Your task to perform on an android device: delete the emails in spam in the gmail app Image 0: 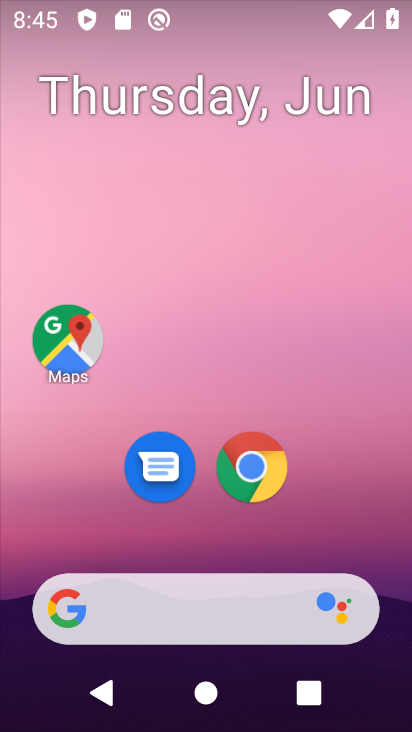
Step 0: drag from (67, 533) to (171, 91)
Your task to perform on an android device: delete the emails in spam in the gmail app Image 1: 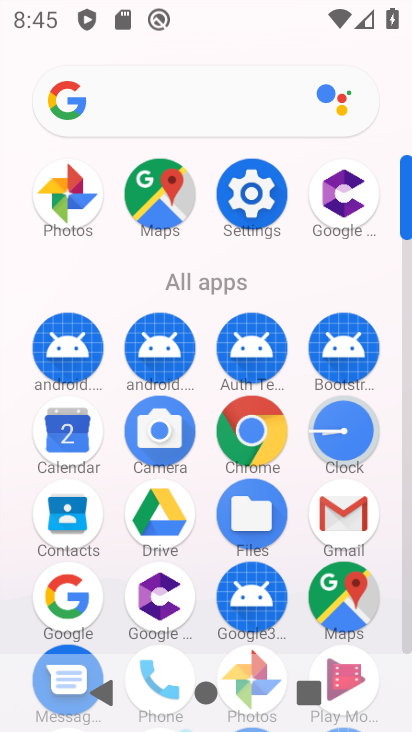
Step 1: click (325, 523)
Your task to perform on an android device: delete the emails in spam in the gmail app Image 2: 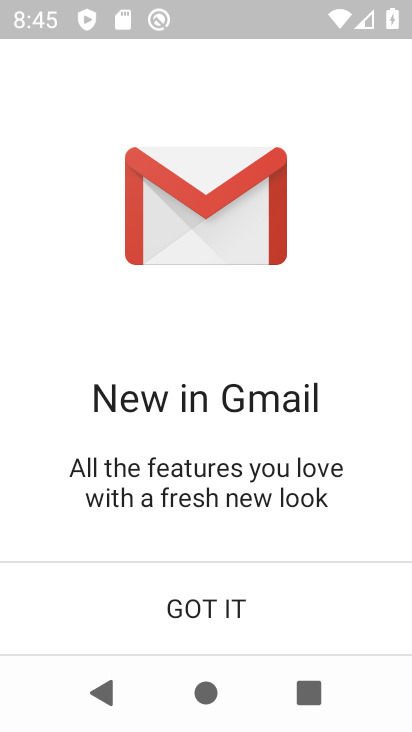
Step 2: click (243, 629)
Your task to perform on an android device: delete the emails in spam in the gmail app Image 3: 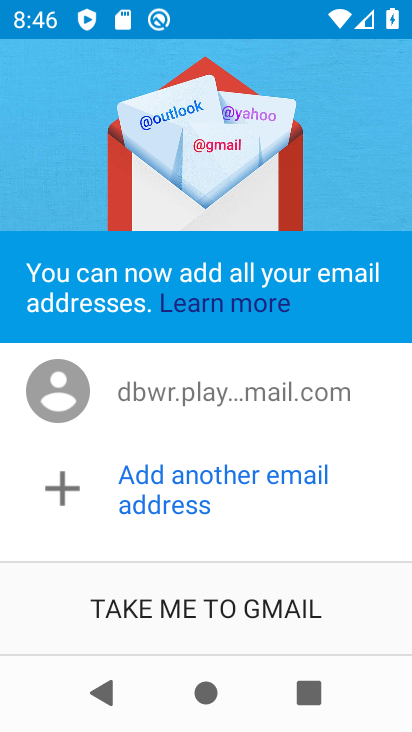
Step 3: click (243, 633)
Your task to perform on an android device: delete the emails in spam in the gmail app Image 4: 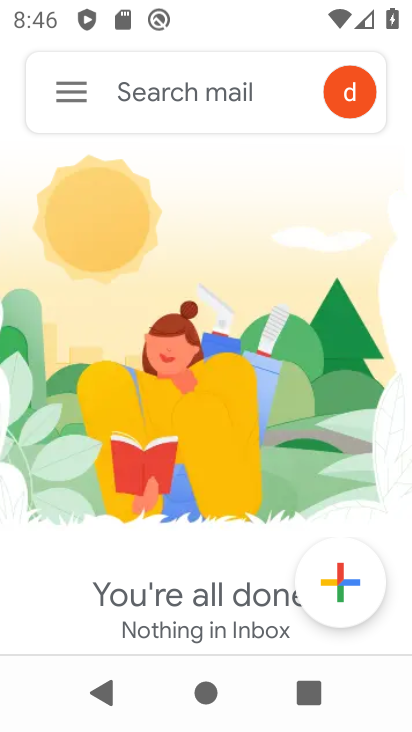
Step 4: click (90, 84)
Your task to perform on an android device: delete the emails in spam in the gmail app Image 5: 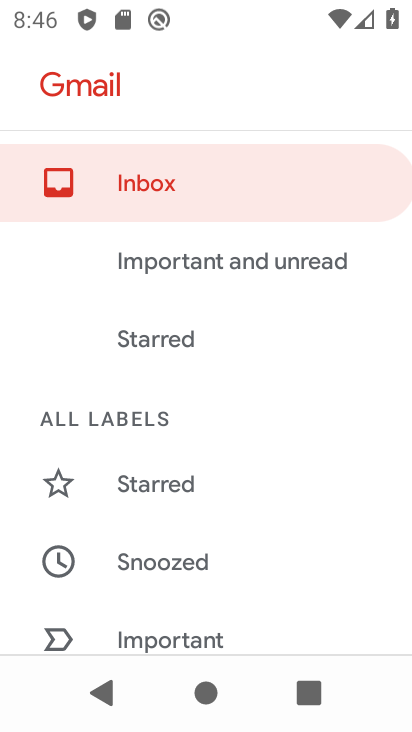
Step 5: drag from (171, 576) to (291, 156)
Your task to perform on an android device: delete the emails in spam in the gmail app Image 6: 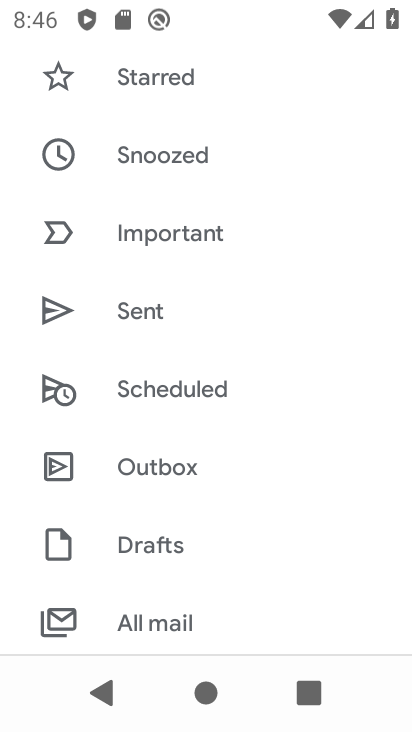
Step 6: drag from (191, 532) to (300, 190)
Your task to perform on an android device: delete the emails in spam in the gmail app Image 7: 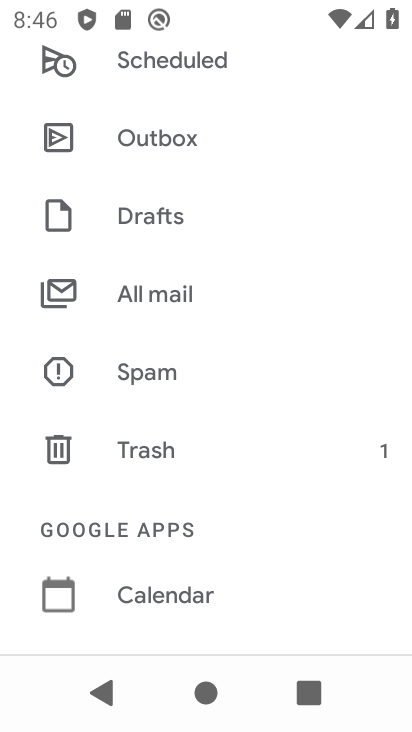
Step 7: click (234, 371)
Your task to perform on an android device: delete the emails in spam in the gmail app Image 8: 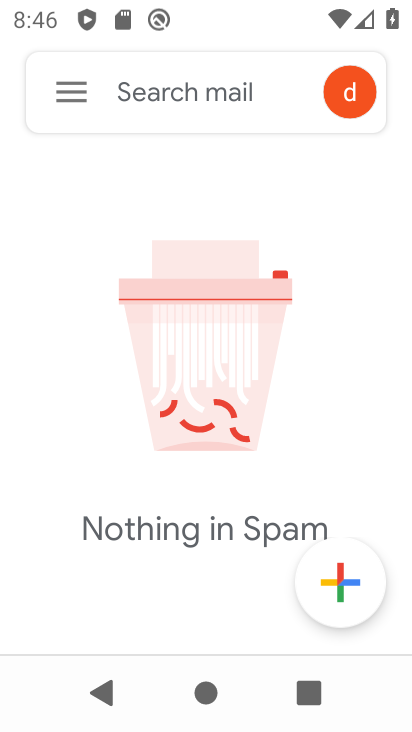
Step 8: task complete